Your task to perform on an android device: turn on location history Image 0: 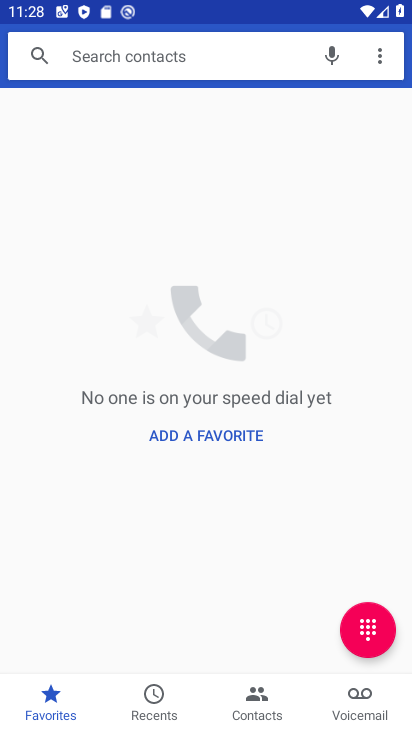
Step 0: press home button
Your task to perform on an android device: turn on location history Image 1: 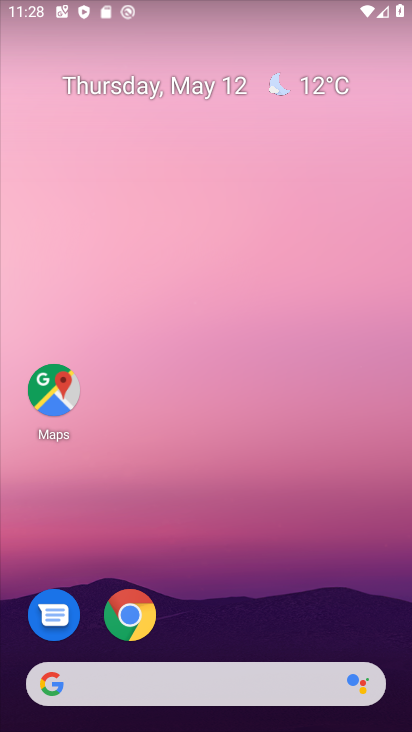
Step 1: drag from (200, 620) to (236, 207)
Your task to perform on an android device: turn on location history Image 2: 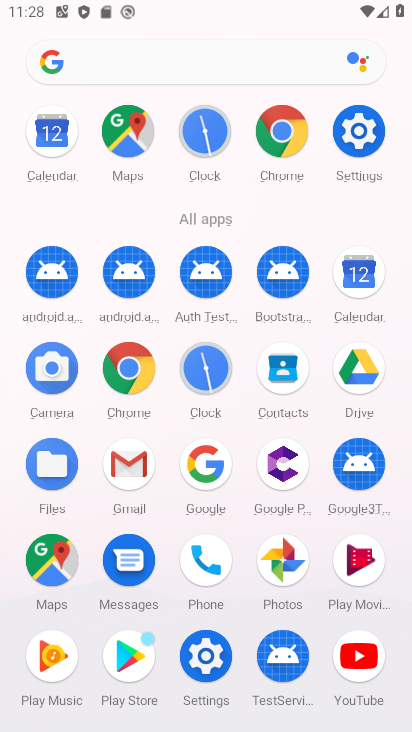
Step 2: click (335, 144)
Your task to perform on an android device: turn on location history Image 3: 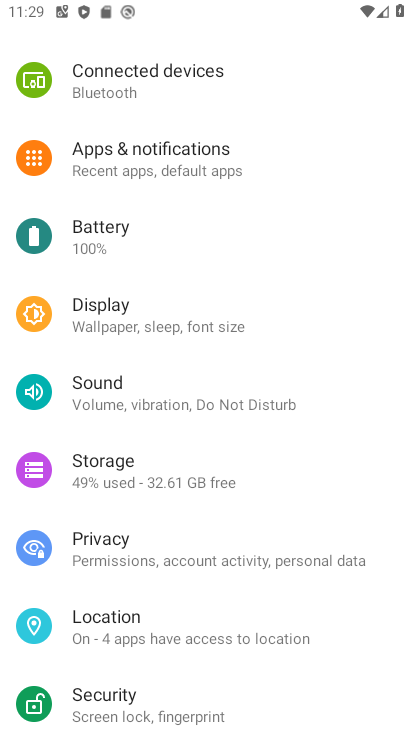
Step 3: click (159, 618)
Your task to perform on an android device: turn on location history Image 4: 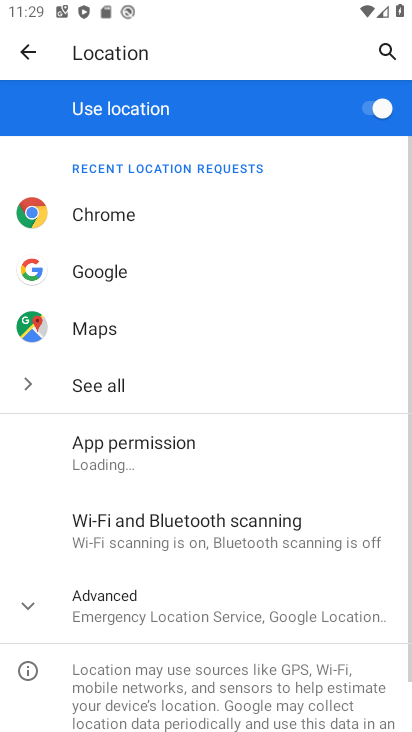
Step 4: drag from (233, 551) to (265, 343)
Your task to perform on an android device: turn on location history Image 5: 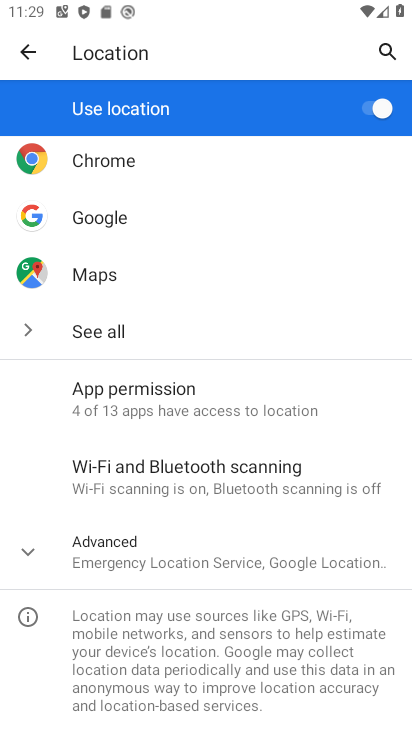
Step 5: click (164, 540)
Your task to perform on an android device: turn on location history Image 6: 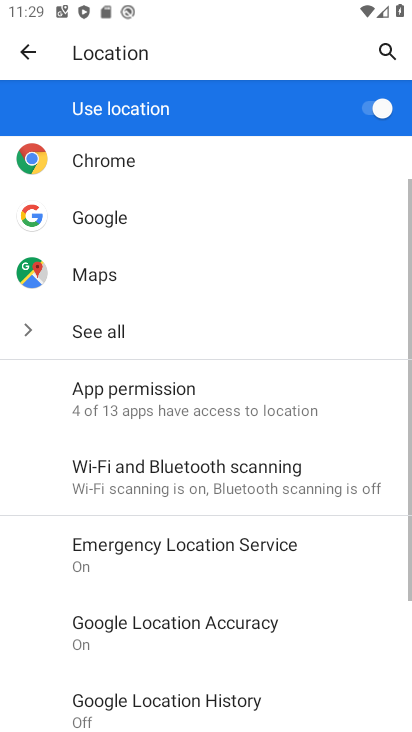
Step 6: drag from (238, 580) to (279, 351)
Your task to perform on an android device: turn on location history Image 7: 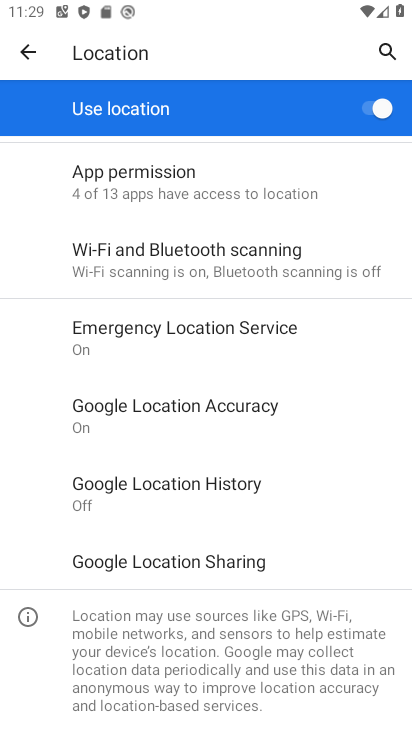
Step 7: click (261, 479)
Your task to perform on an android device: turn on location history Image 8: 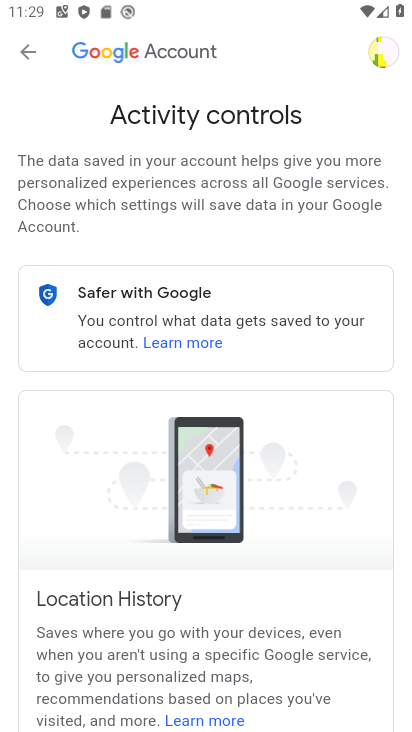
Step 8: task complete